Your task to perform on an android device: Show me the best rated power washer on Home Depot. Image 0: 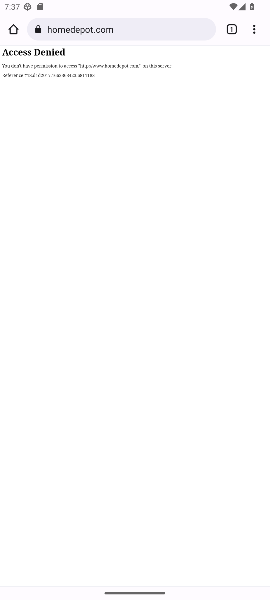
Step 0: click (89, 25)
Your task to perform on an android device: Show me the best rated power washer on Home Depot. Image 1: 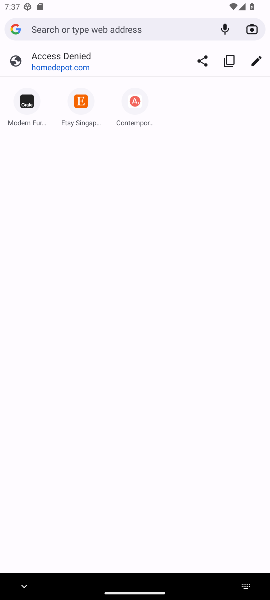
Step 1: type "Home Depot."
Your task to perform on an android device: Show me the best rated power washer on Home Depot. Image 2: 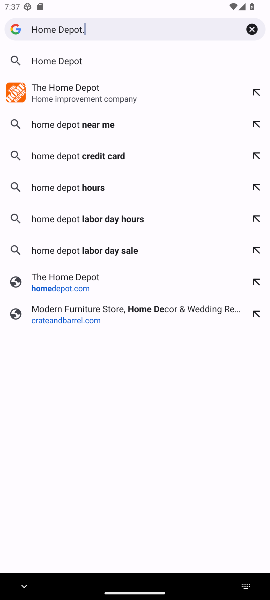
Step 2: type ""
Your task to perform on an android device: Show me the best rated power washer on Home Depot. Image 3: 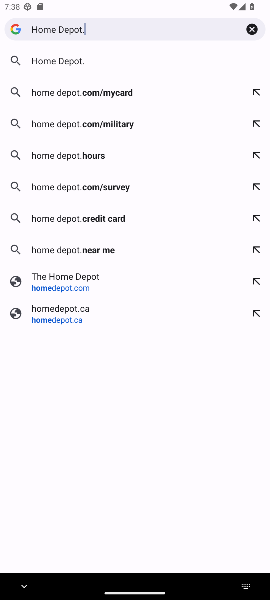
Step 3: click (77, 61)
Your task to perform on an android device: Show me the best rated power washer on Home Depot. Image 4: 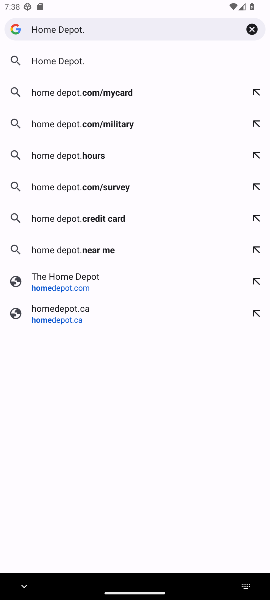
Step 4: click (69, 62)
Your task to perform on an android device: Show me the best rated power washer on Home Depot. Image 5: 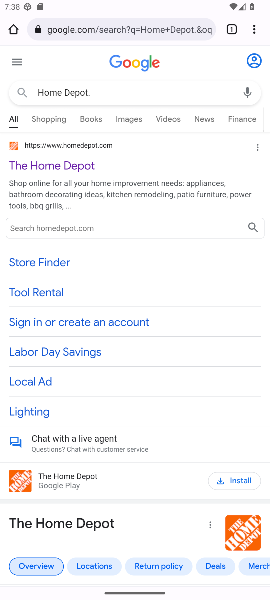
Step 5: click (49, 162)
Your task to perform on an android device: Show me the best rated power washer on Home Depot. Image 6: 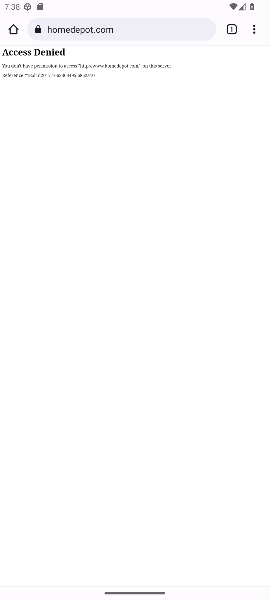
Step 6: task complete